Your task to perform on an android device: See recent photos Image 0: 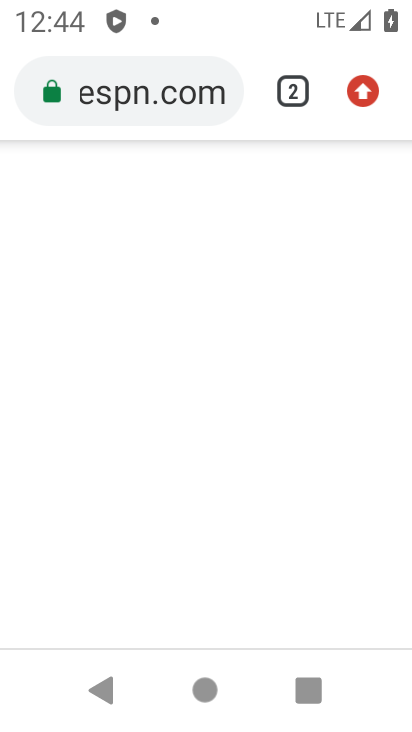
Step 0: press home button
Your task to perform on an android device: See recent photos Image 1: 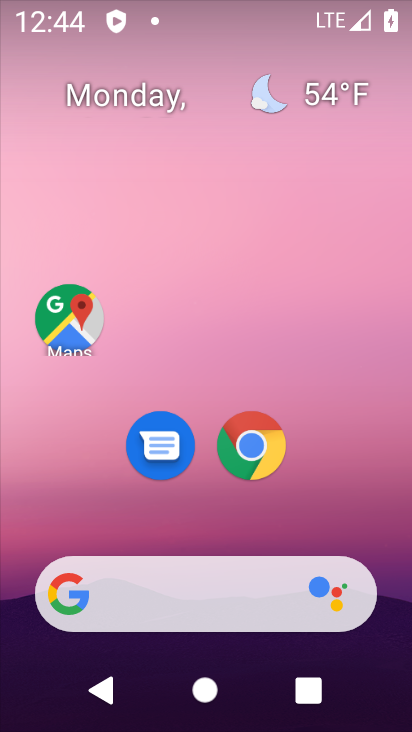
Step 1: drag from (398, 535) to (378, 68)
Your task to perform on an android device: See recent photos Image 2: 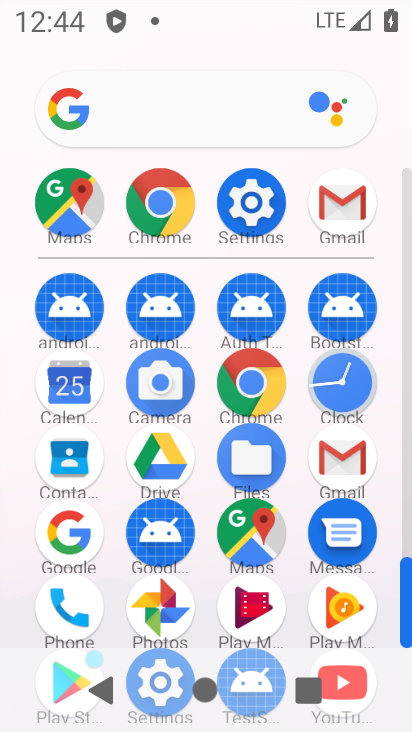
Step 2: click (175, 603)
Your task to perform on an android device: See recent photos Image 3: 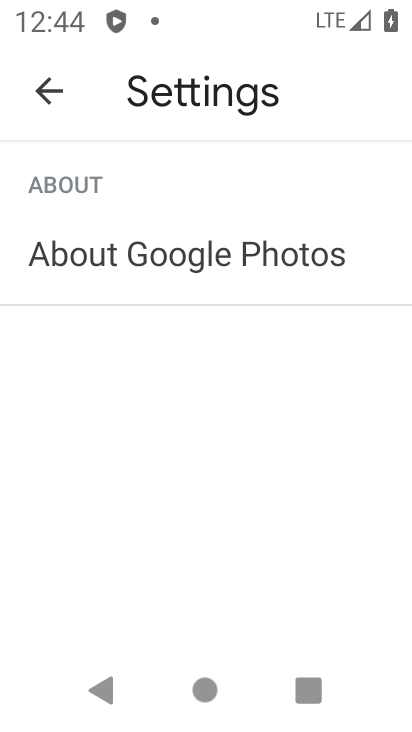
Step 3: click (54, 101)
Your task to perform on an android device: See recent photos Image 4: 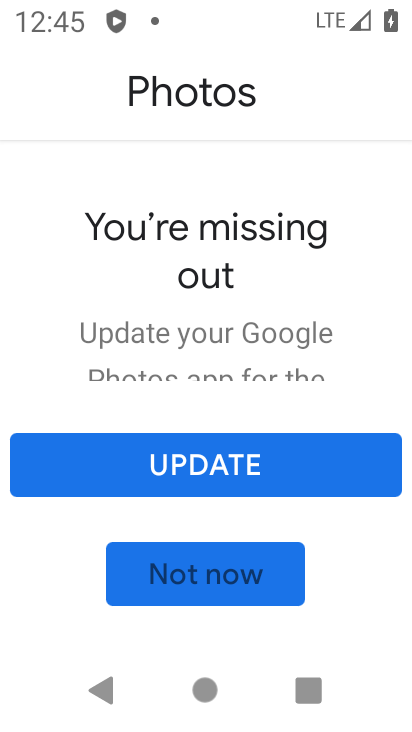
Step 4: click (216, 480)
Your task to perform on an android device: See recent photos Image 5: 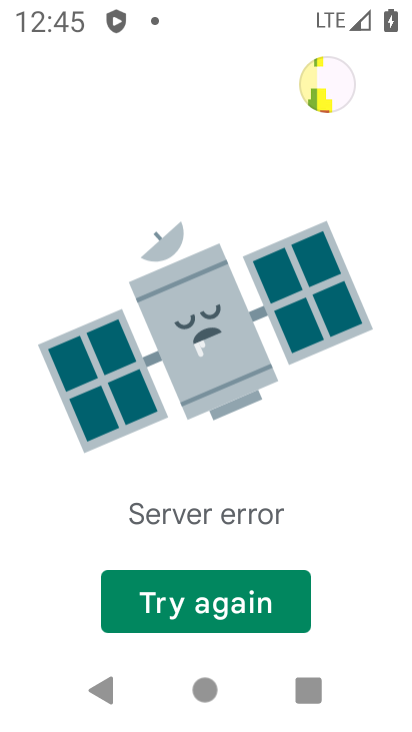
Step 5: task complete